Your task to perform on an android device: Open Yahoo.com Image 0: 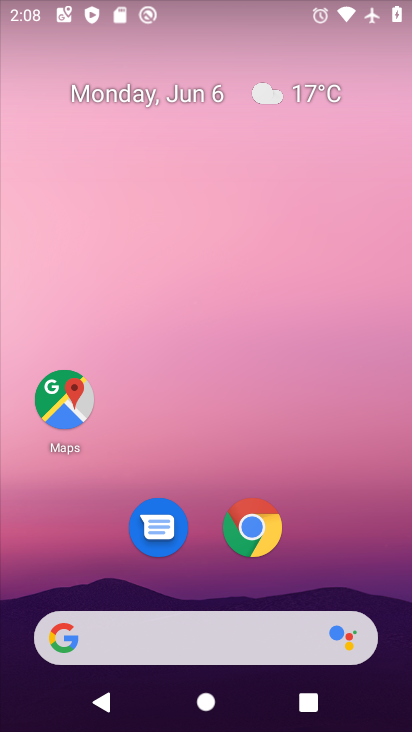
Step 0: click (246, 534)
Your task to perform on an android device: Open Yahoo.com Image 1: 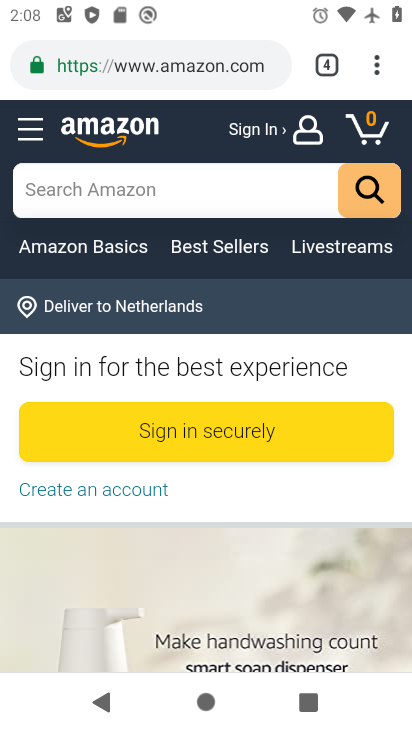
Step 1: click (371, 63)
Your task to perform on an android device: Open Yahoo.com Image 2: 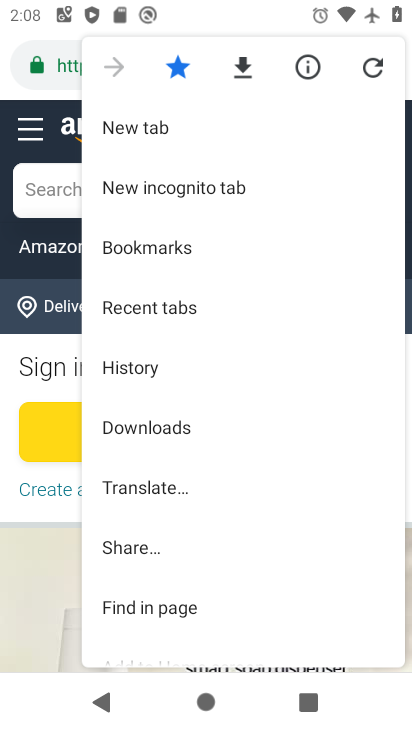
Step 2: click (159, 119)
Your task to perform on an android device: Open Yahoo.com Image 3: 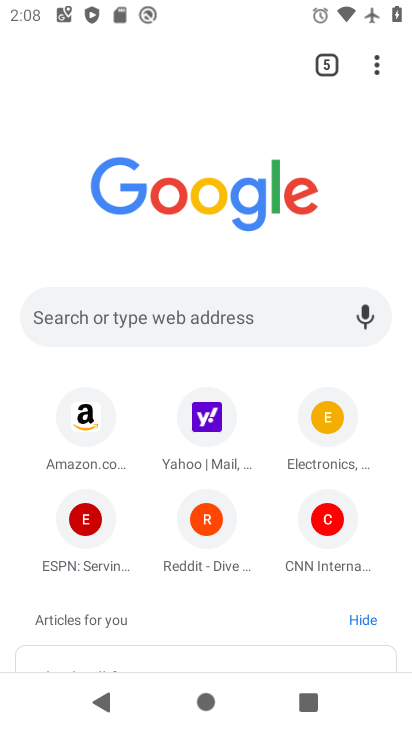
Step 3: click (190, 421)
Your task to perform on an android device: Open Yahoo.com Image 4: 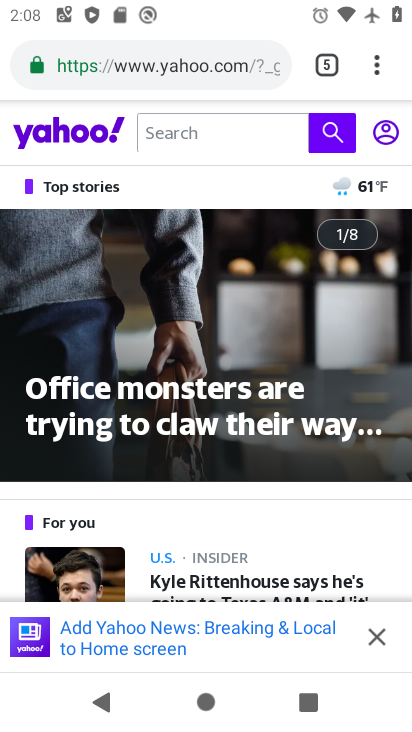
Step 4: task complete